Your task to perform on an android device: Open CNN.com Image 0: 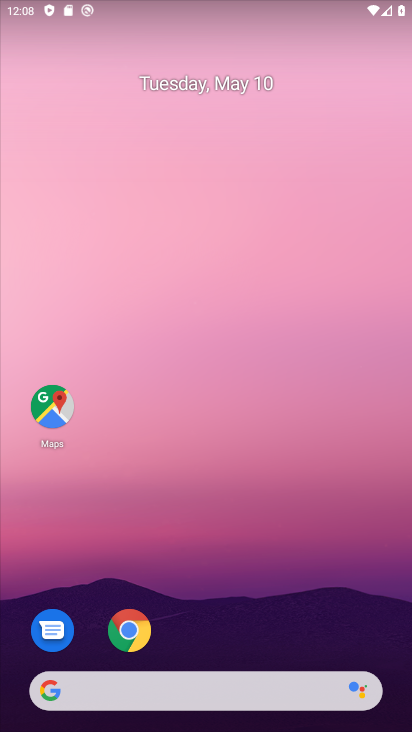
Step 0: click (130, 622)
Your task to perform on an android device: Open CNN.com Image 1: 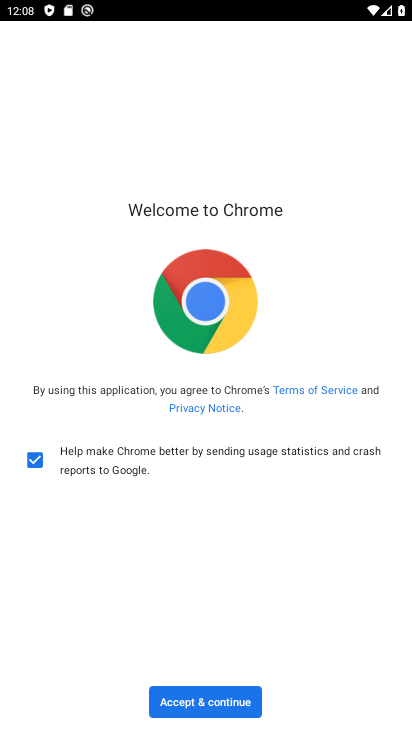
Step 1: click (223, 699)
Your task to perform on an android device: Open CNN.com Image 2: 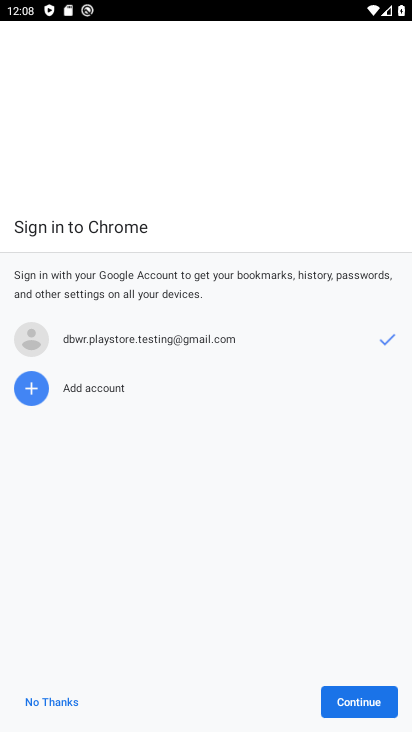
Step 2: click (353, 699)
Your task to perform on an android device: Open CNN.com Image 3: 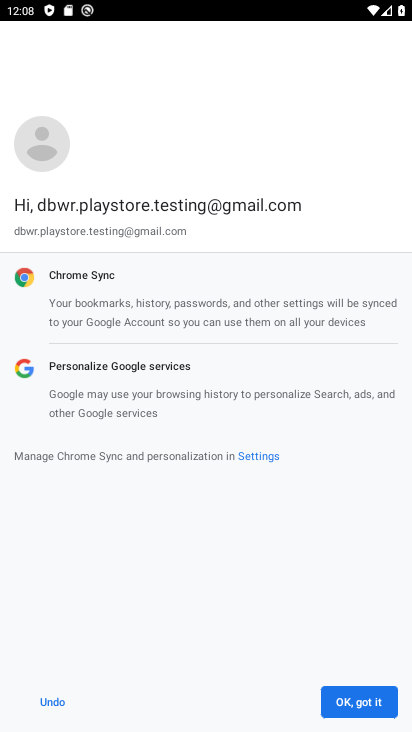
Step 3: click (353, 699)
Your task to perform on an android device: Open CNN.com Image 4: 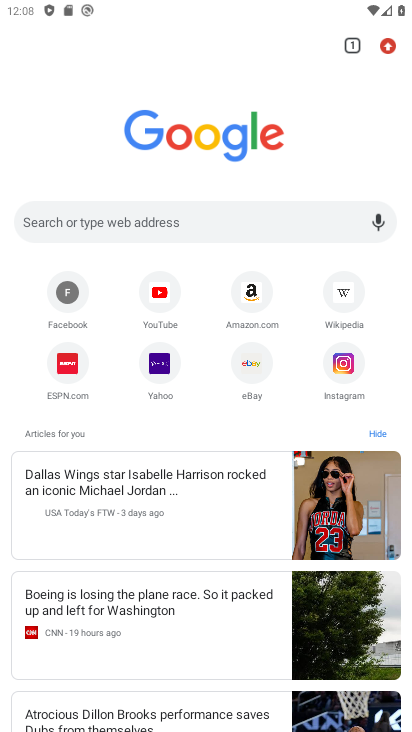
Step 4: click (239, 224)
Your task to perform on an android device: Open CNN.com Image 5: 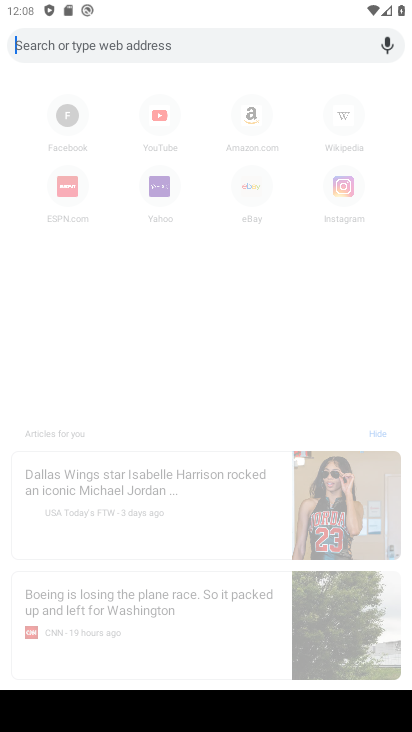
Step 5: type "CNN.com"
Your task to perform on an android device: Open CNN.com Image 6: 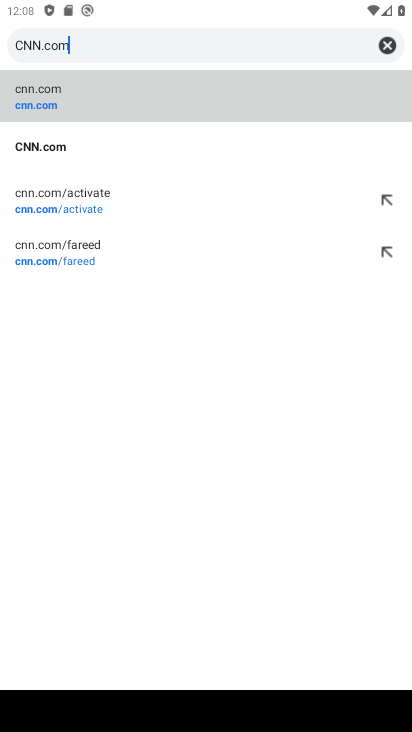
Step 6: click (60, 105)
Your task to perform on an android device: Open CNN.com Image 7: 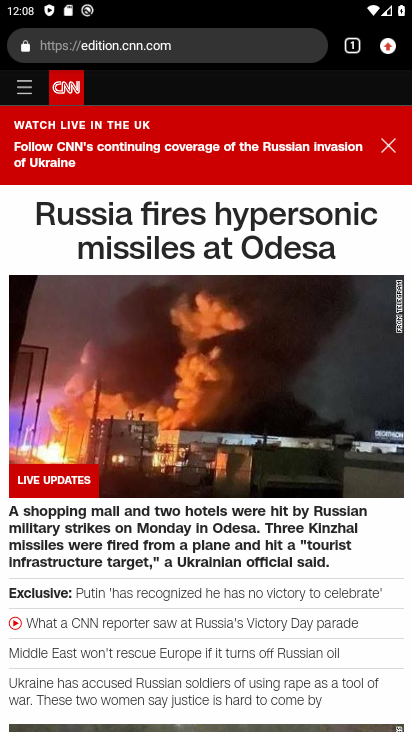
Step 7: task complete